Your task to perform on an android device: Open ESPN.com Image 0: 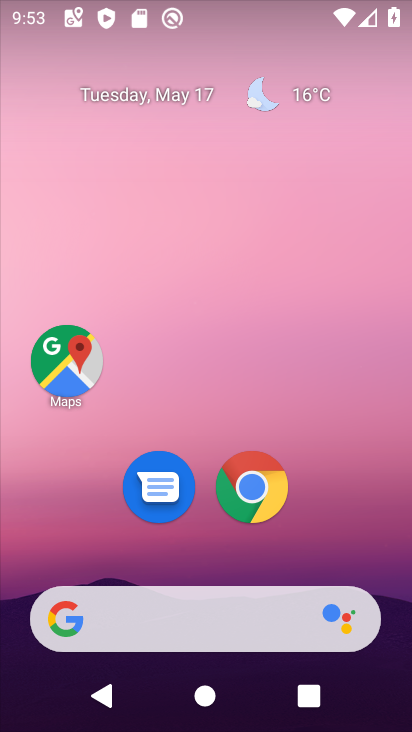
Step 0: drag from (227, 567) to (275, 2)
Your task to perform on an android device: Open ESPN.com Image 1: 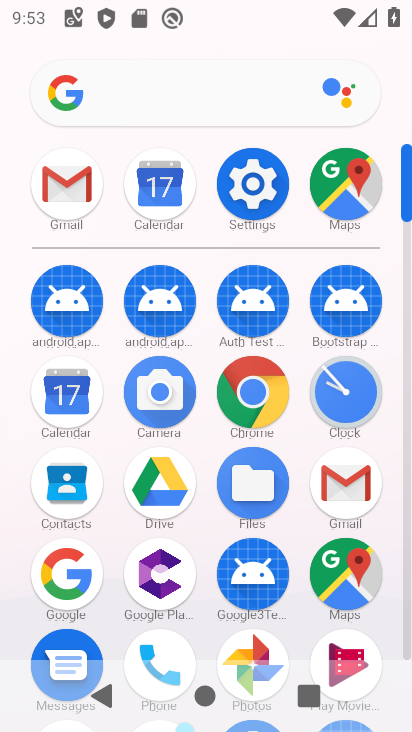
Step 1: click (252, 394)
Your task to perform on an android device: Open ESPN.com Image 2: 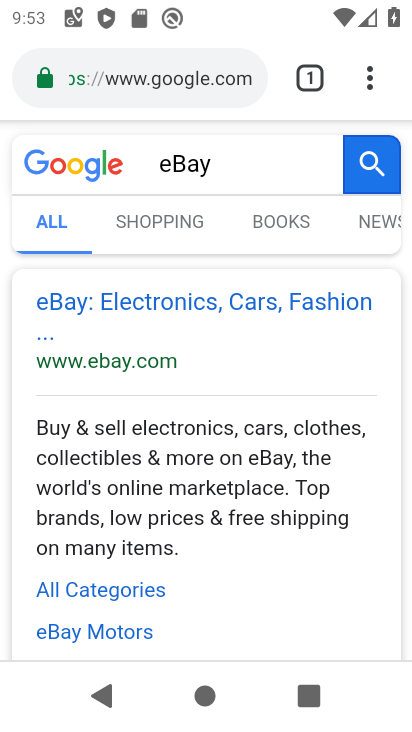
Step 2: click (162, 80)
Your task to perform on an android device: Open ESPN.com Image 3: 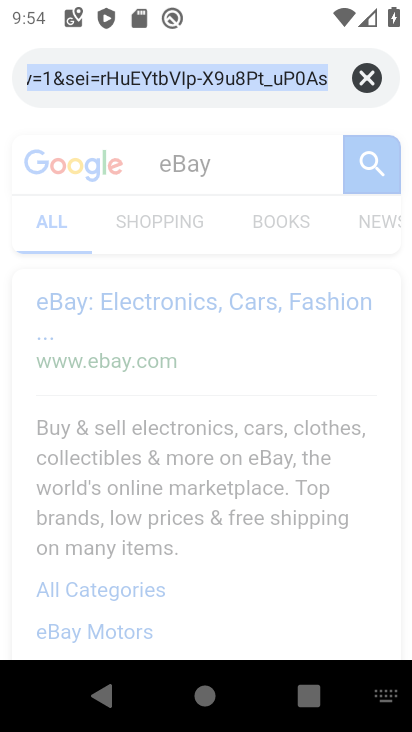
Step 3: type "ESPN.com"
Your task to perform on an android device: Open ESPN.com Image 4: 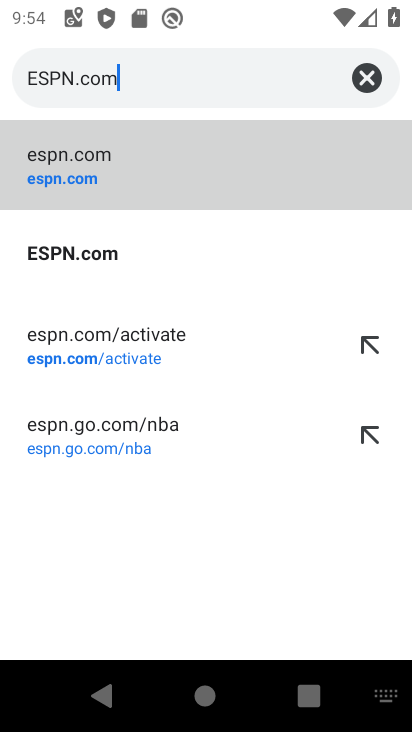
Step 4: click (124, 251)
Your task to perform on an android device: Open ESPN.com Image 5: 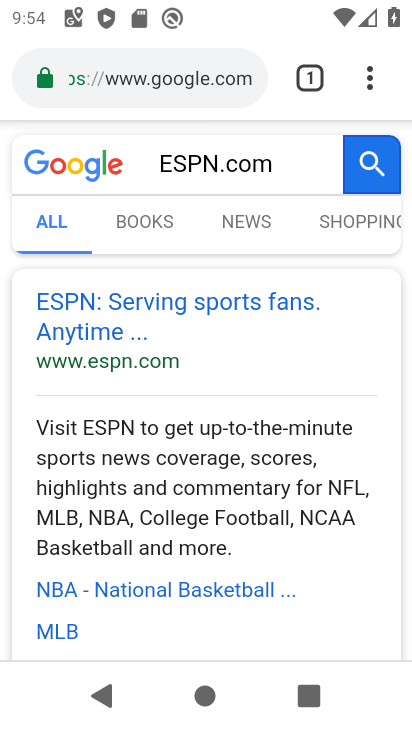
Step 5: task complete